Your task to perform on an android device: turn on location history Image 0: 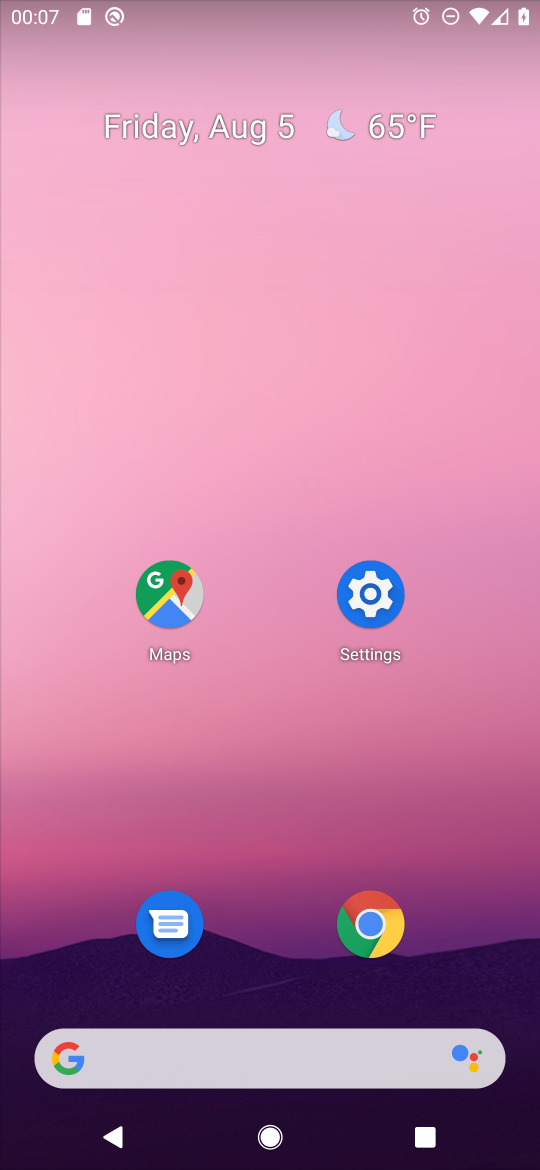
Step 0: click (171, 603)
Your task to perform on an android device: turn on location history Image 1: 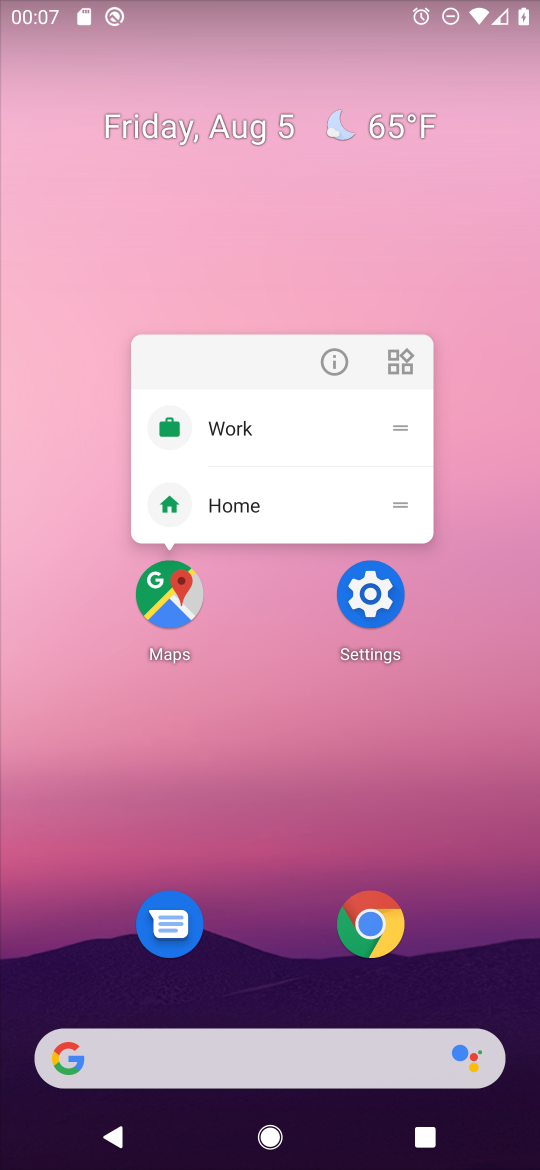
Step 1: click (171, 603)
Your task to perform on an android device: turn on location history Image 2: 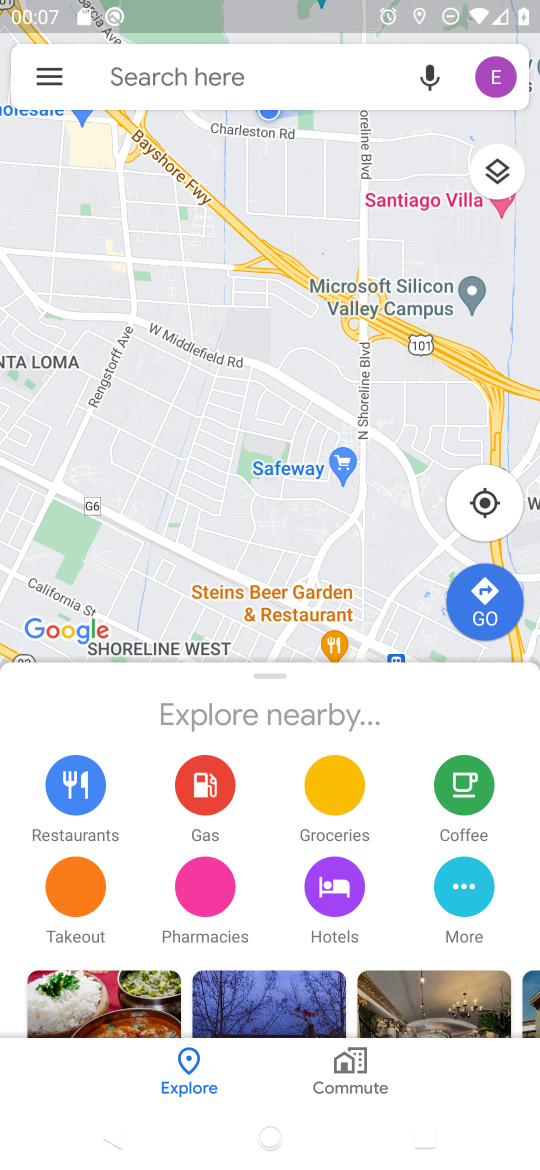
Step 2: click (53, 80)
Your task to perform on an android device: turn on location history Image 3: 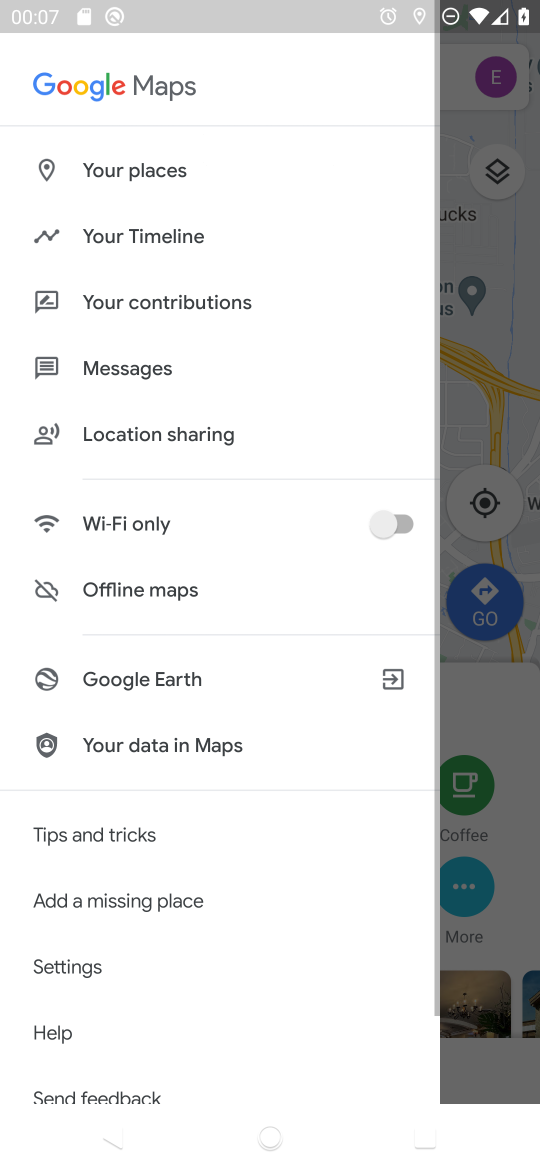
Step 3: click (131, 242)
Your task to perform on an android device: turn on location history Image 4: 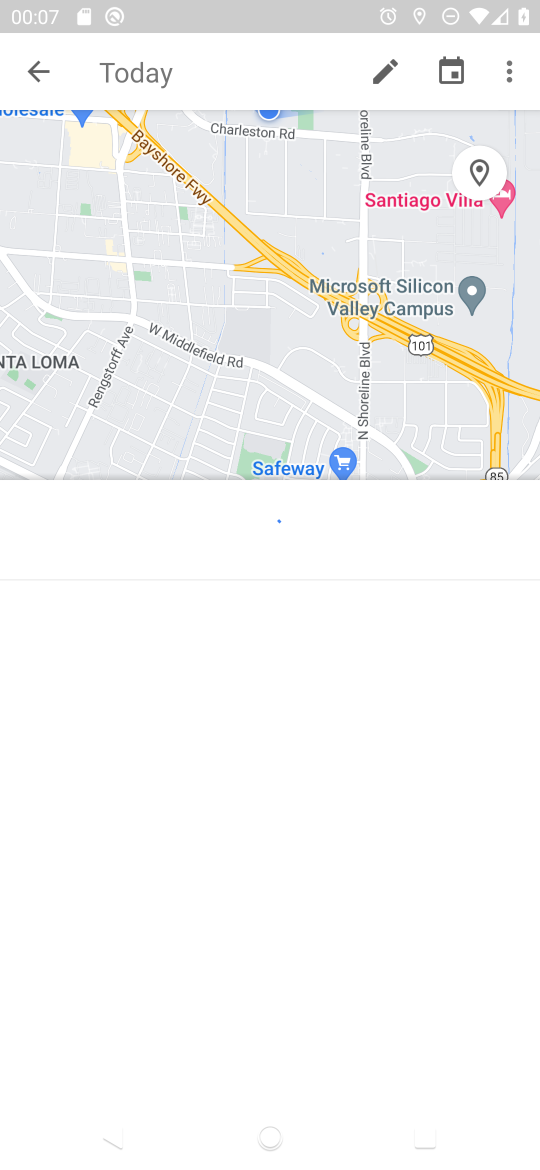
Step 4: click (510, 74)
Your task to perform on an android device: turn on location history Image 5: 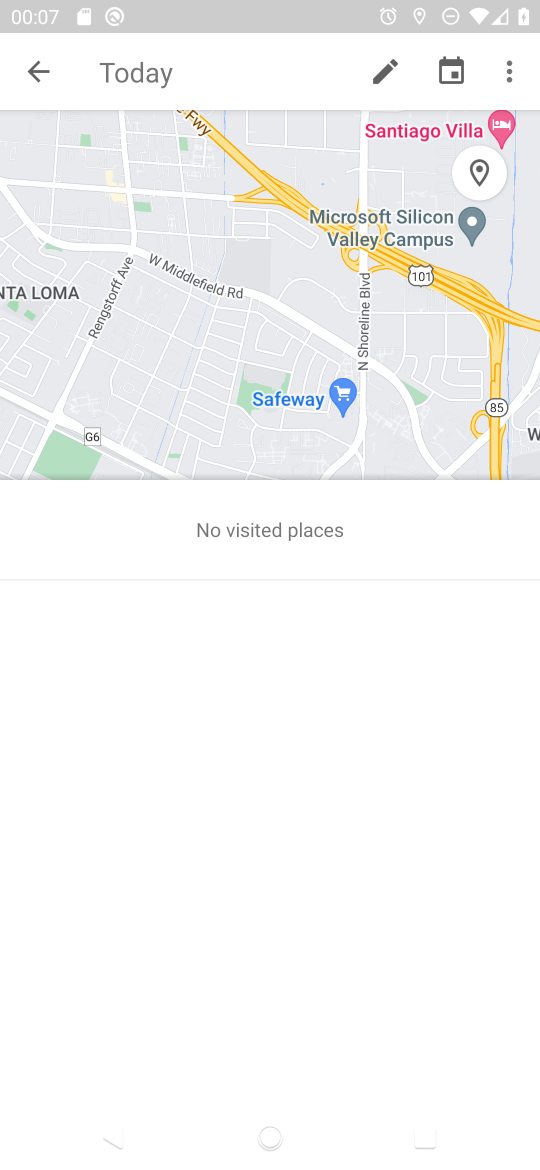
Step 5: click (516, 72)
Your task to perform on an android device: turn on location history Image 6: 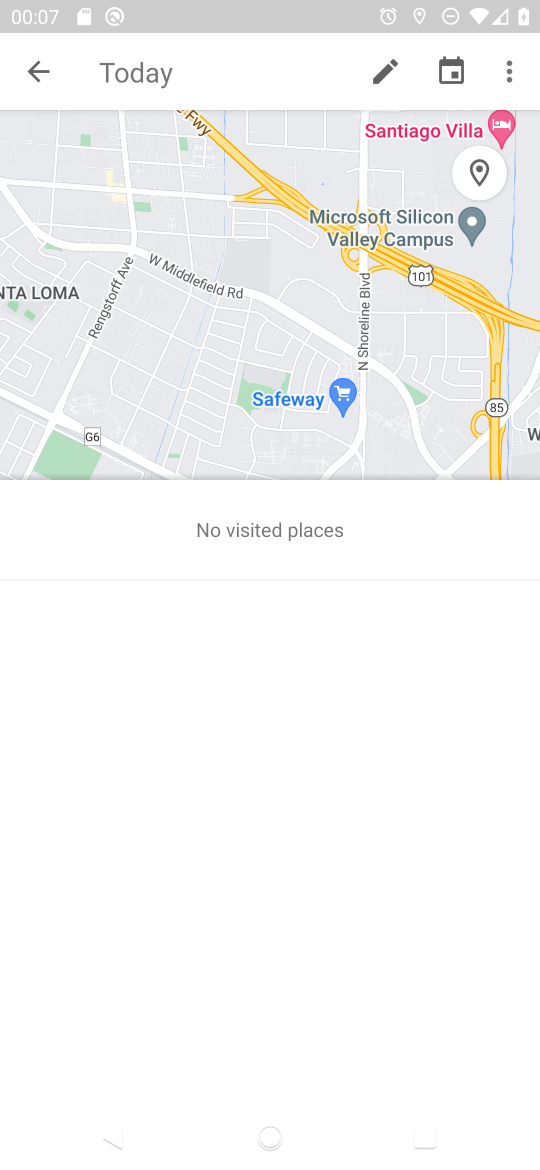
Step 6: click (510, 80)
Your task to perform on an android device: turn on location history Image 7: 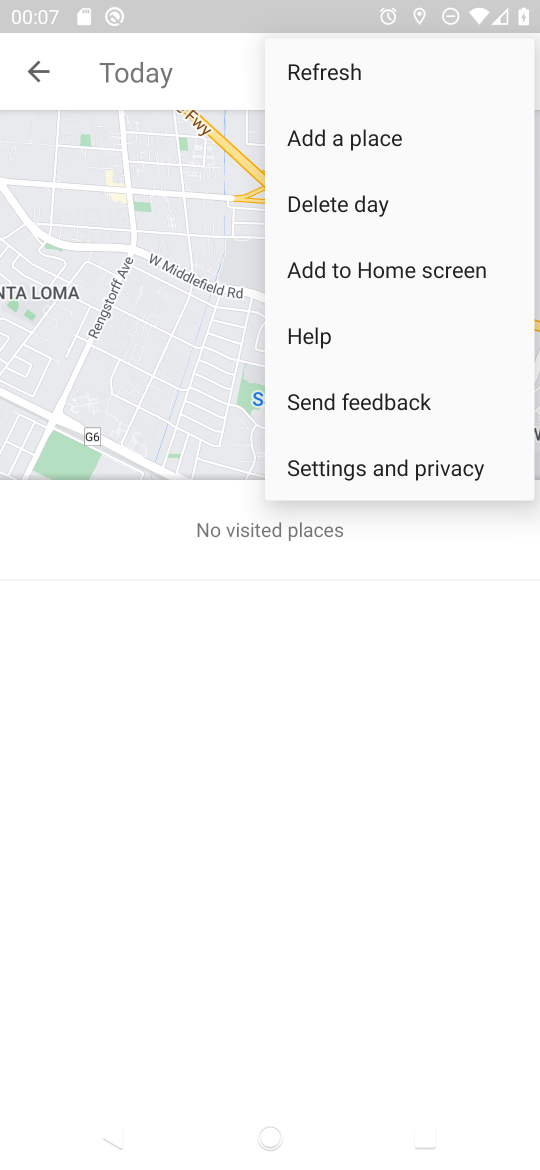
Step 7: click (321, 469)
Your task to perform on an android device: turn on location history Image 8: 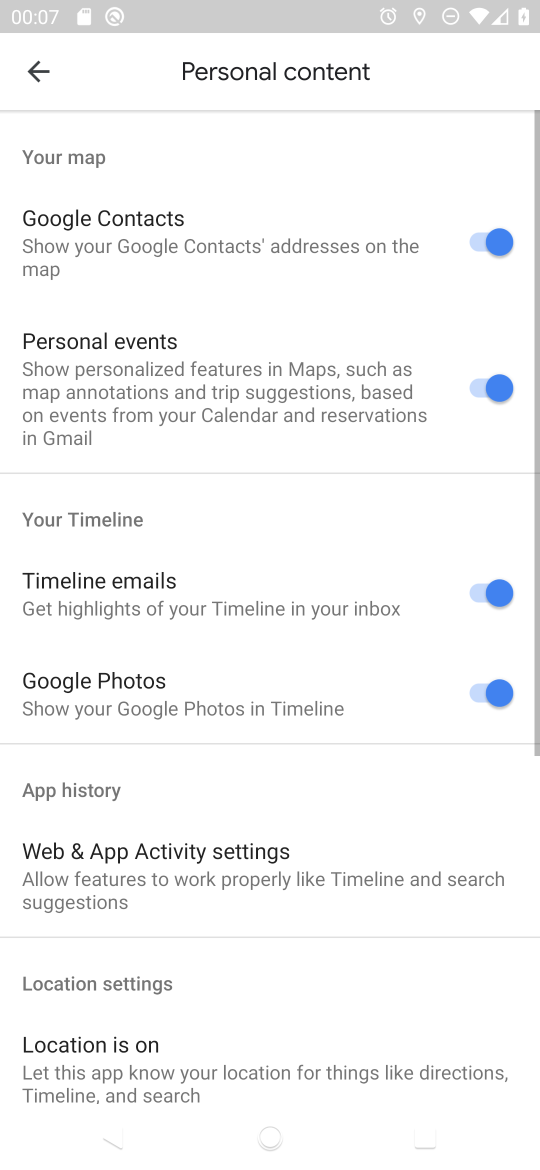
Step 8: drag from (243, 915) to (477, 104)
Your task to perform on an android device: turn on location history Image 9: 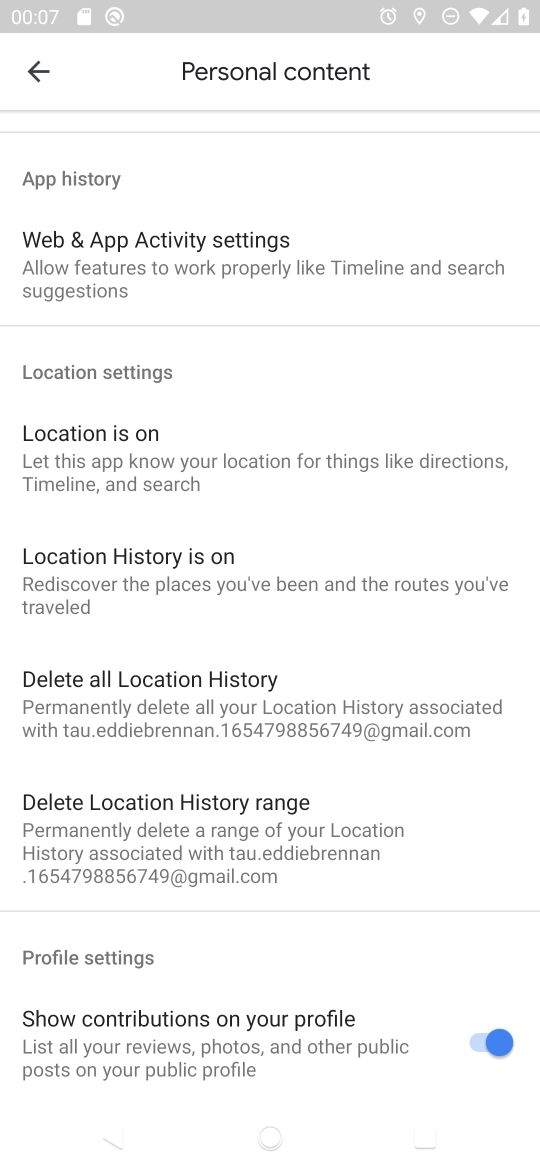
Step 9: click (192, 564)
Your task to perform on an android device: turn on location history Image 10: 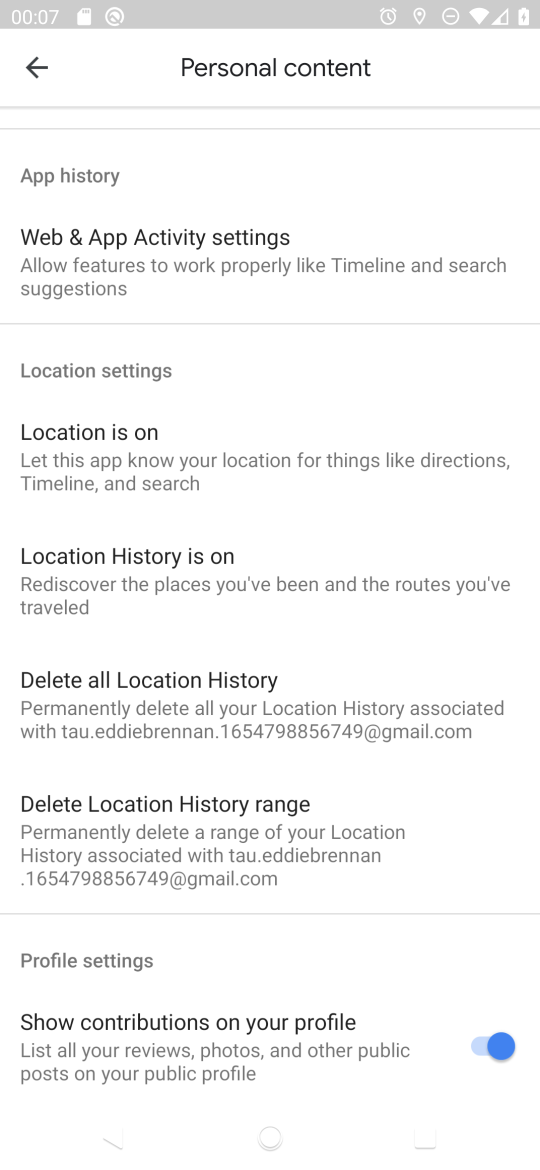
Step 10: click (124, 552)
Your task to perform on an android device: turn on location history Image 11: 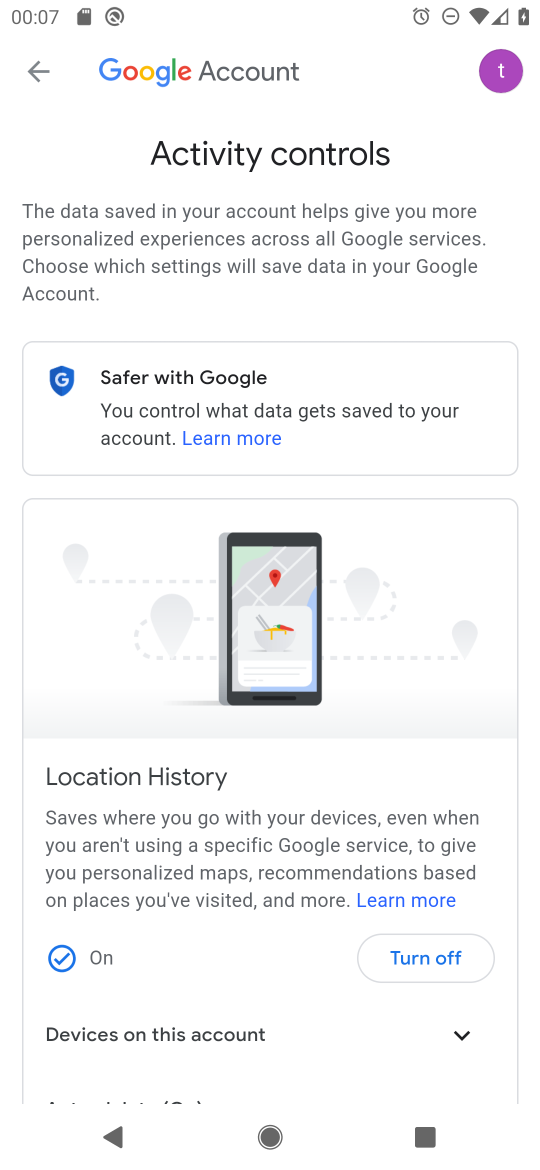
Step 11: task complete